Your task to perform on an android device: Open Maps and search for coffee Image 0: 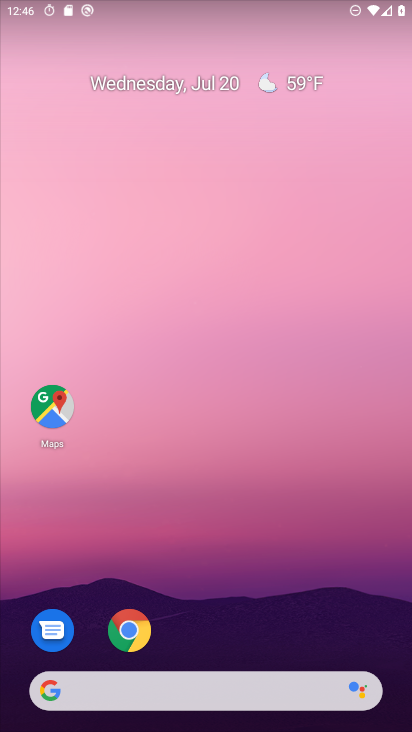
Step 0: drag from (141, 672) to (177, 0)
Your task to perform on an android device: Open Maps and search for coffee Image 1: 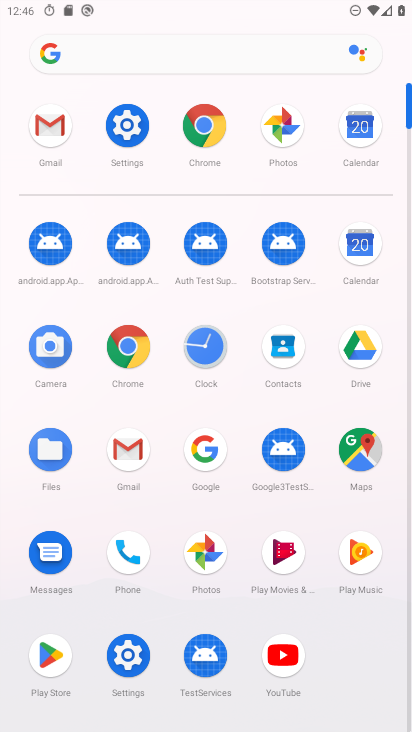
Step 1: click (358, 451)
Your task to perform on an android device: Open Maps and search for coffee Image 2: 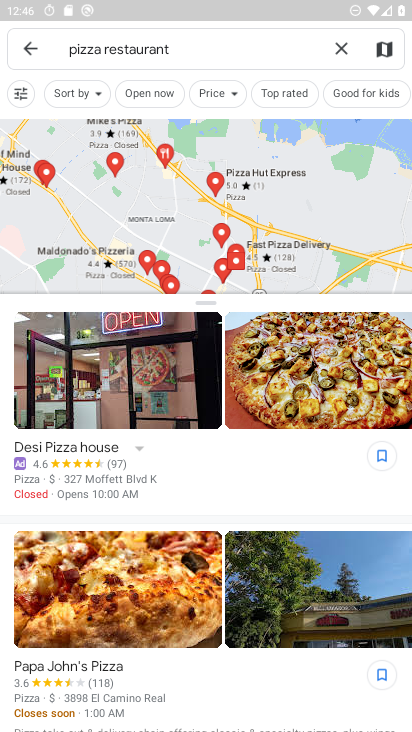
Step 2: click (349, 50)
Your task to perform on an android device: Open Maps and search for coffee Image 3: 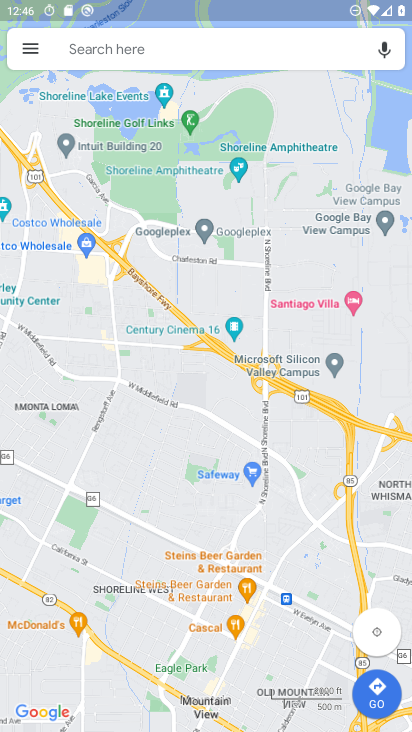
Step 3: click (192, 57)
Your task to perform on an android device: Open Maps and search for coffee Image 4: 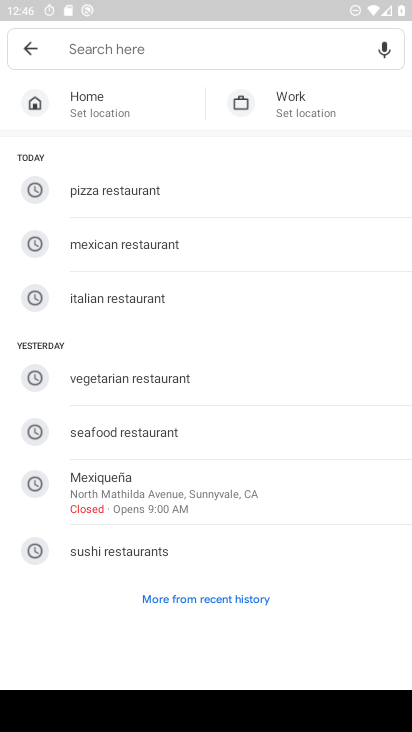
Step 4: type "coffee"
Your task to perform on an android device: Open Maps and search for coffee Image 5: 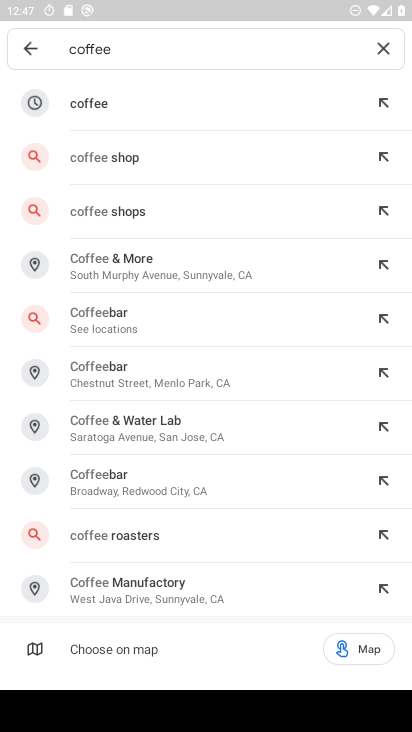
Step 5: click (223, 97)
Your task to perform on an android device: Open Maps and search for coffee Image 6: 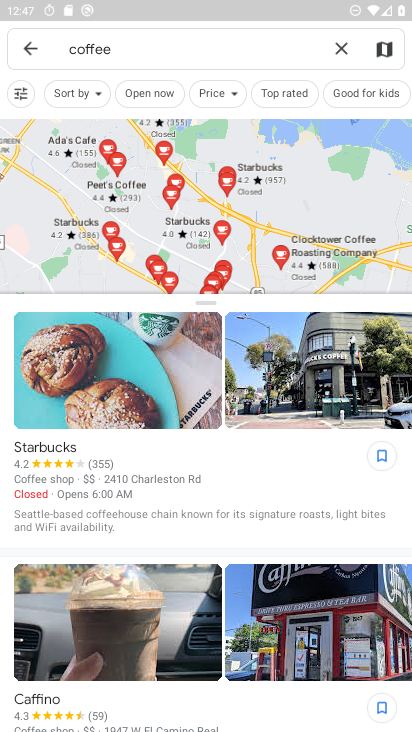
Step 6: task complete